Your task to perform on an android device: Go to sound settings Image 0: 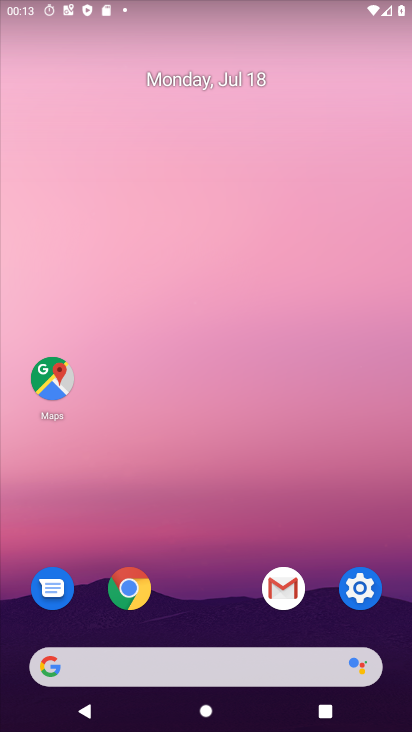
Step 0: click (368, 593)
Your task to perform on an android device: Go to sound settings Image 1: 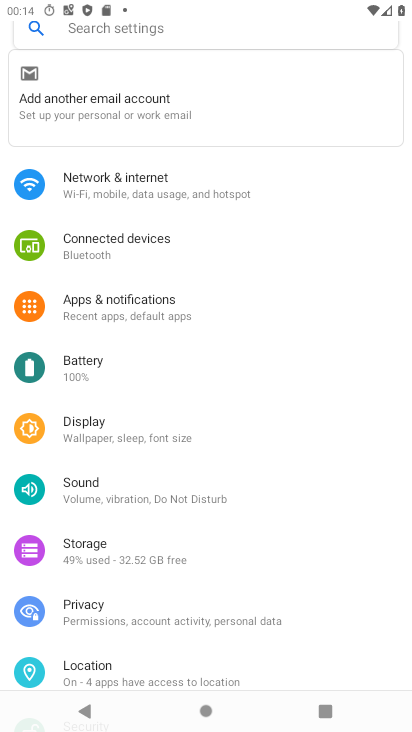
Step 1: click (128, 505)
Your task to perform on an android device: Go to sound settings Image 2: 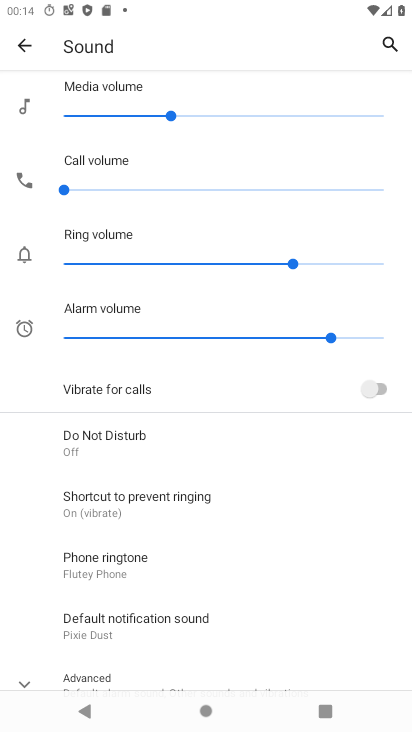
Step 2: task complete